Your task to perform on an android device: Clear the shopping cart on target. Add "duracell triple a" to the cart on target, then select checkout. Image 0: 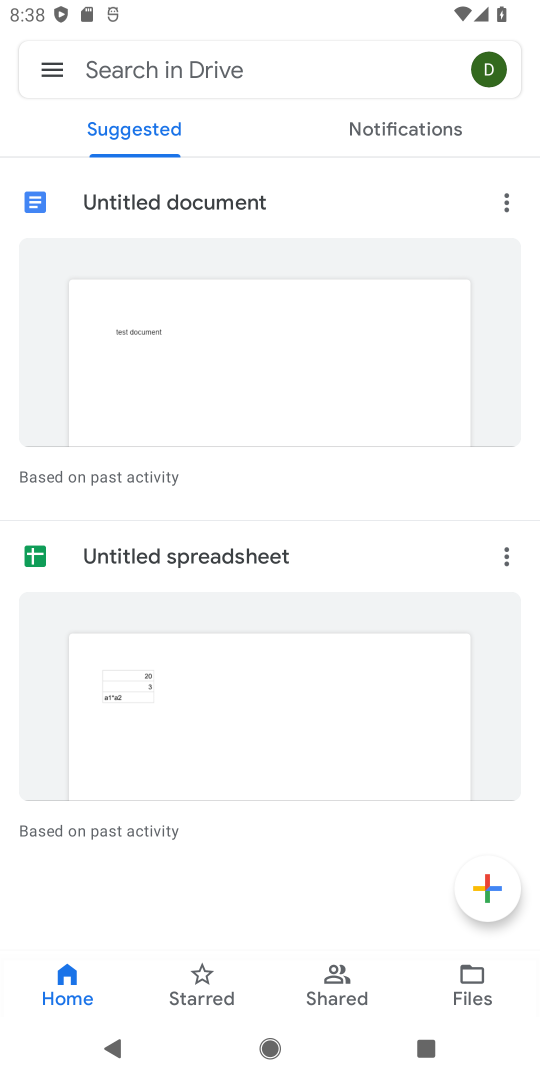
Step 0: press home button
Your task to perform on an android device: Clear the shopping cart on target. Add "duracell triple a" to the cart on target, then select checkout. Image 1: 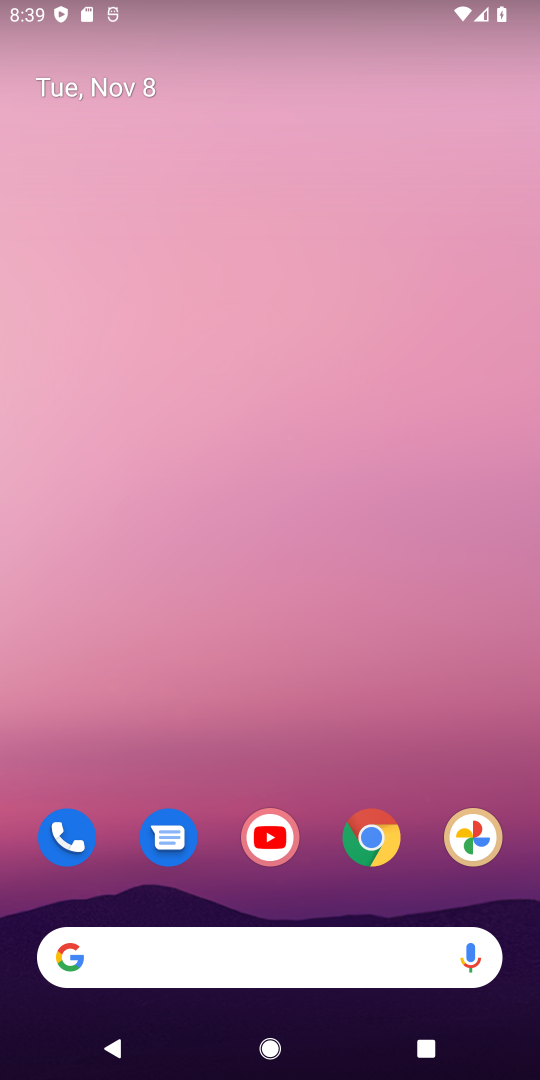
Step 1: click (356, 841)
Your task to perform on an android device: Clear the shopping cart on target. Add "duracell triple a" to the cart on target, then select checkout. Image 2: 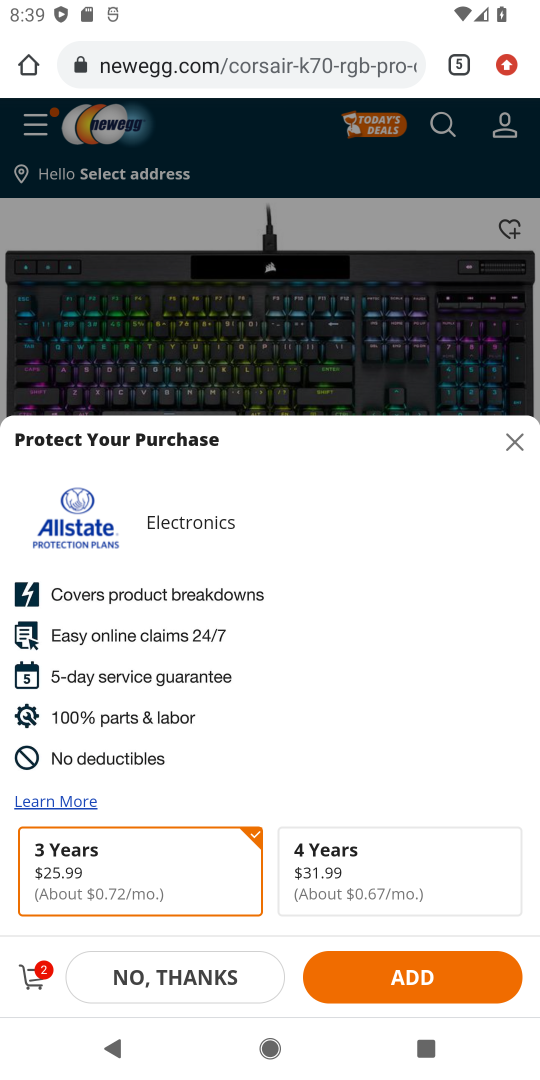
Step 2: click (509, 432)
Your task to perform on an android device: Clear the shopping cart on target. Add "duracell triple a" to the cart on target, then select checkout. Image 3: 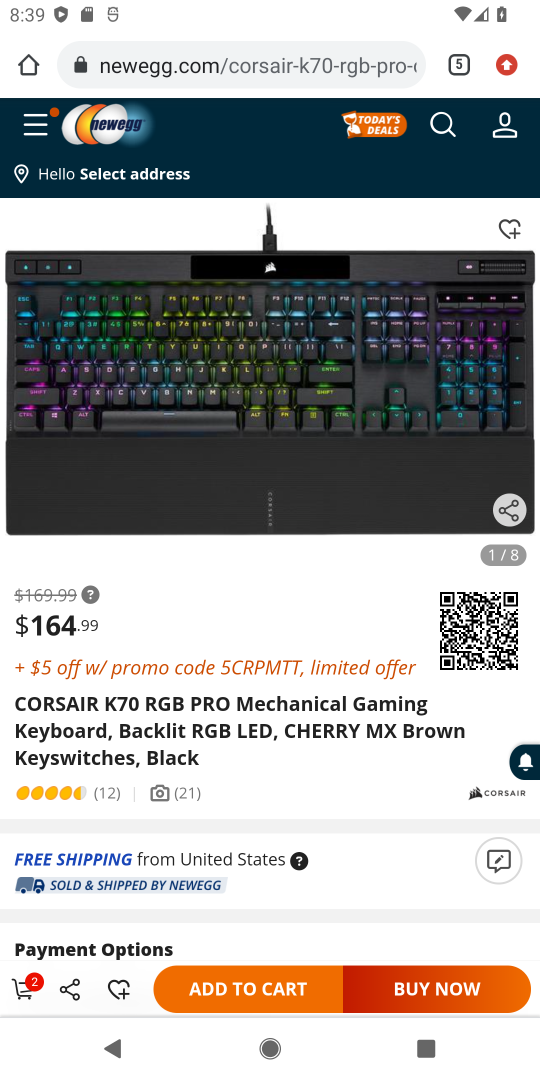
Step 3: click (458, 59)
Your task to perform on an android device: Clear the shopping cart on target. Add "duracell triple a" to the cart on target, then select checkout. Image 4: 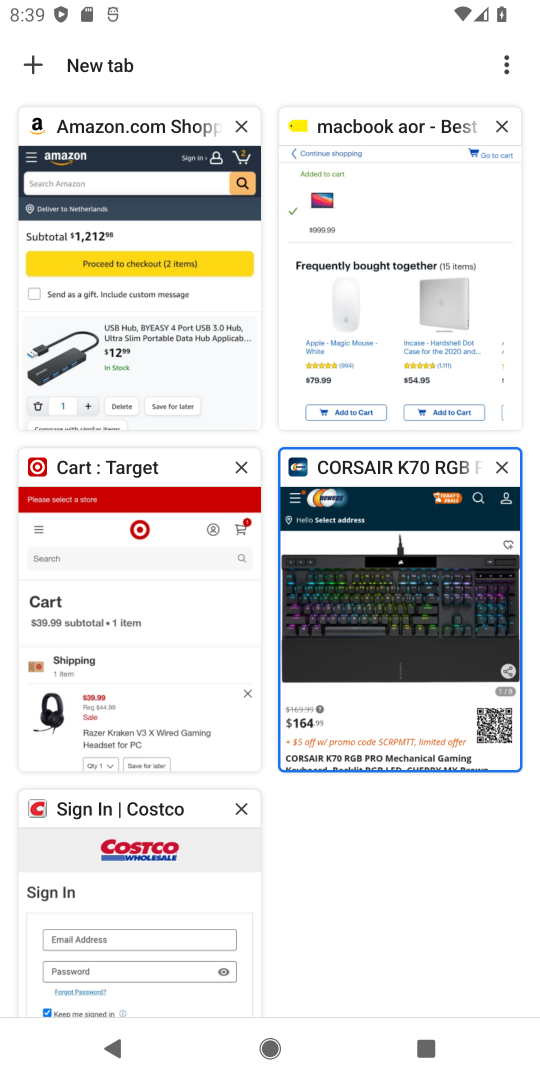
Step 4: click (116, 640)
Your task to perform on an android device: Clear the shopping cart on target. Add "duracell triple a" to the cart on target, then select checkout. Image 5: 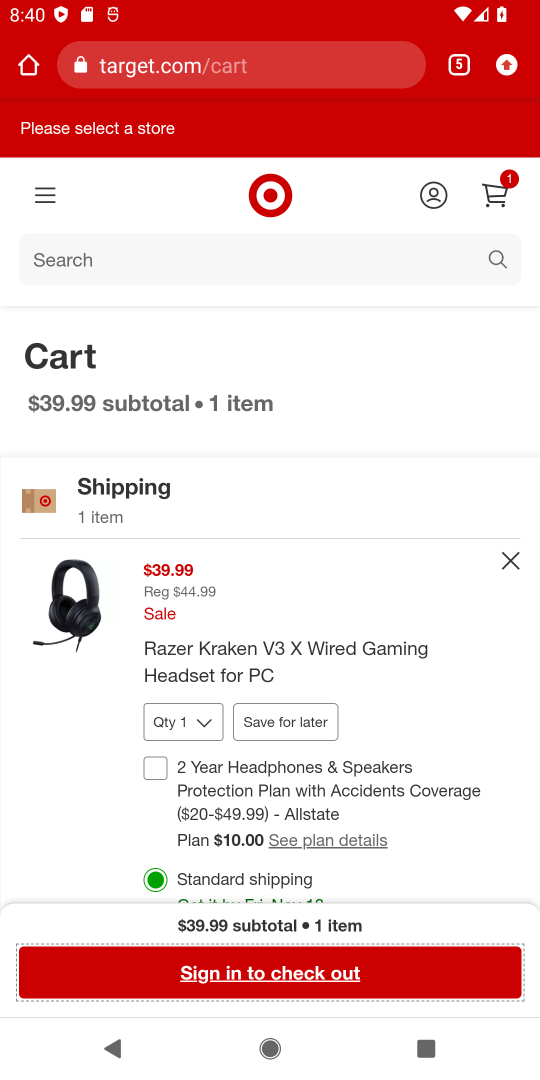
Step 5: click (111, 261)
Your task to perform on an android device: Clear the shopping cart on target. Add "duracell triple a" to the cart on target, then select checkout. Image 6: 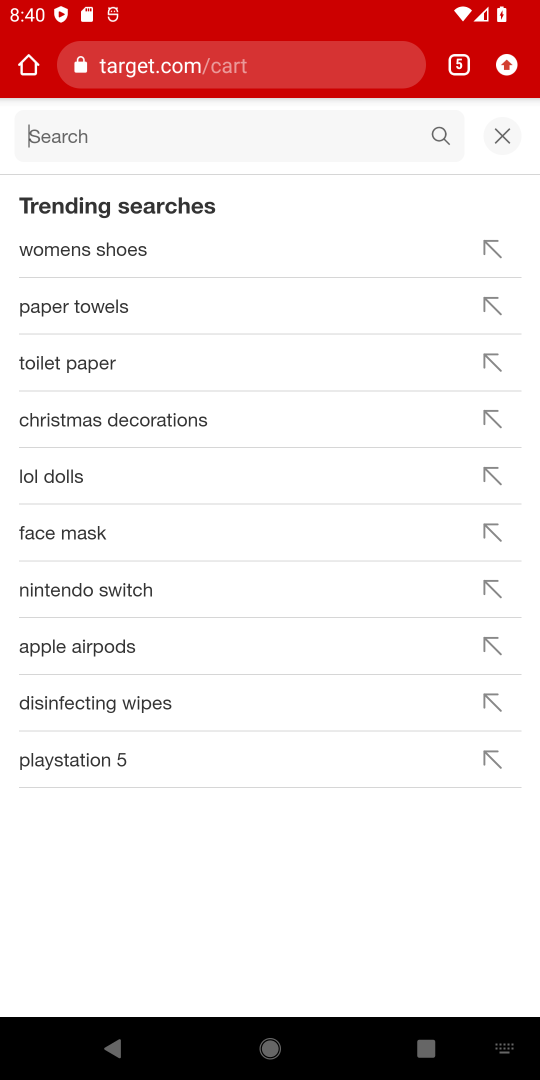
Step 6: type "duracell triple a"
Your task to perform on an android device: Clear the shopping cart on target. Add "duracell triple a" to the cart on target, then select checkout. Image 7: 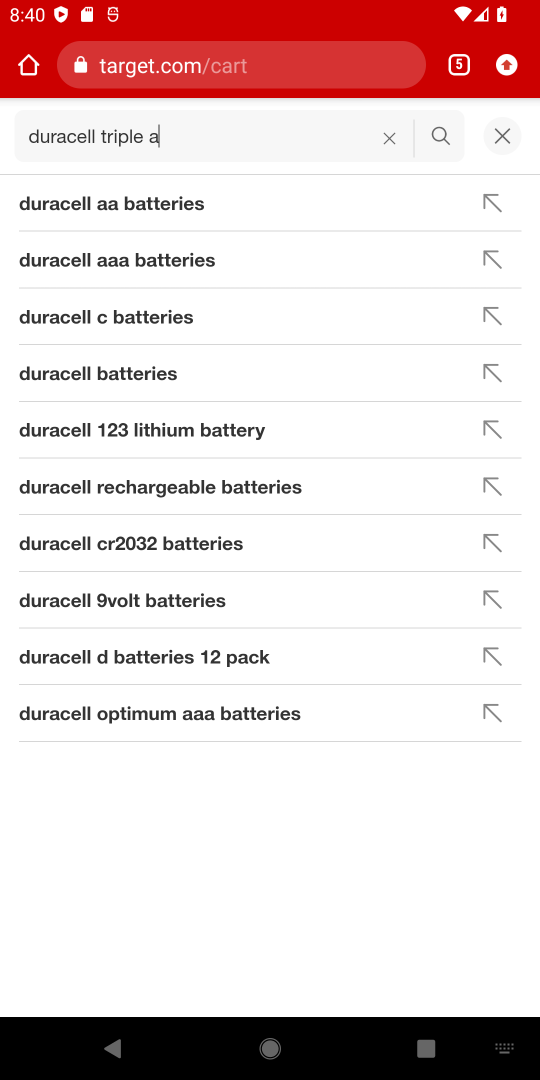
Step 7: click (182, 197)
Your task to perform on an android device: Clear the shopping cart on target. Add "duracell triple a" to the cart on target, then select checkout. Image 8: 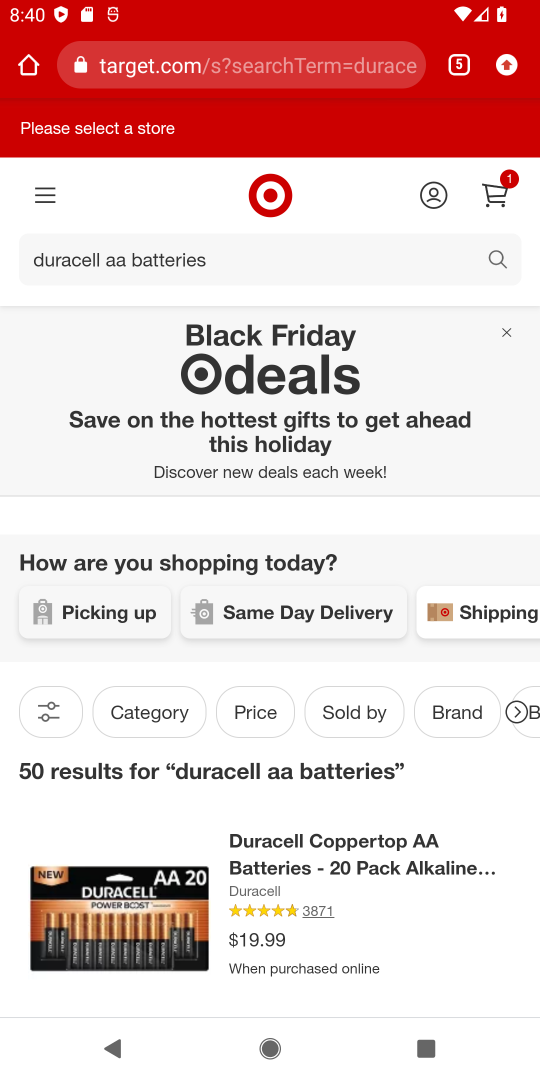
Step 8: click (498, 190)
Your task to perform on an android device: Clear the shopping cart on target. Add "duracell triple a" to the cart on target, then select checkout. Image 9: 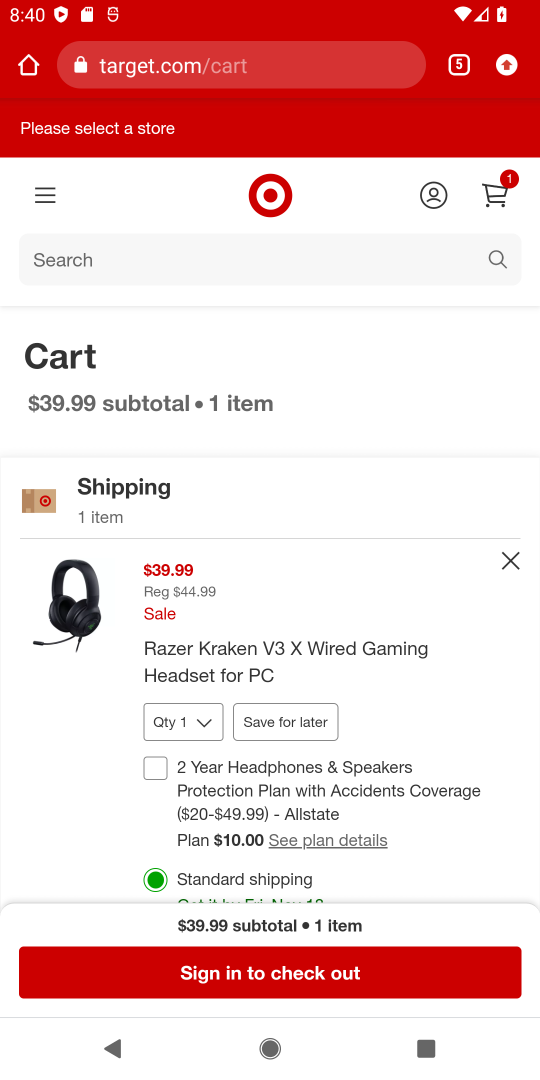
Step 9: click (297, 970)
Your task to perform on an android device: Clear the shopping cart on target. Add "duracell triple a" to the cart on target, then select checkout. Image 10: 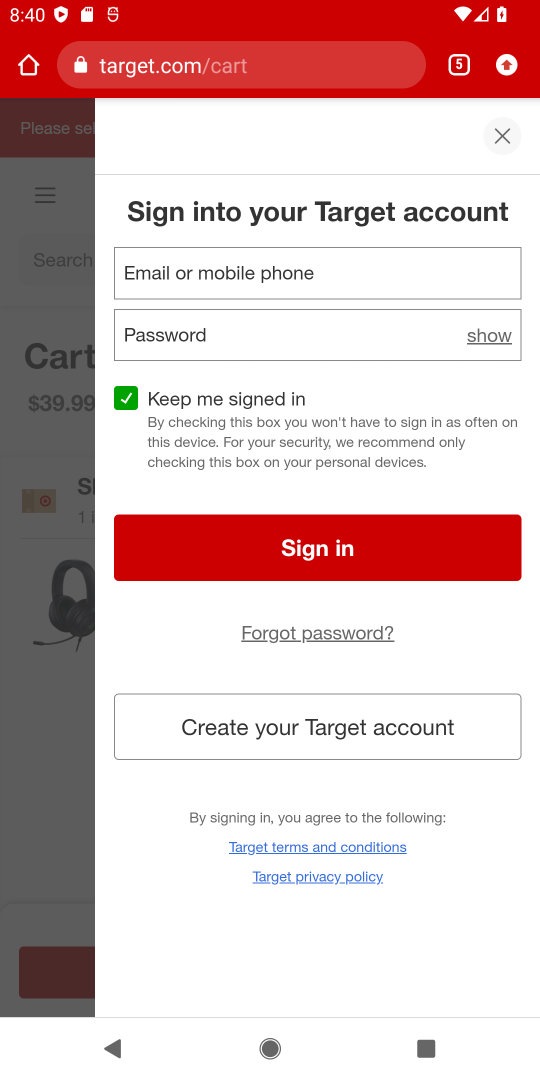
Step 10: task complete